Your task to perform on an android device: What's the weather? Image 0: 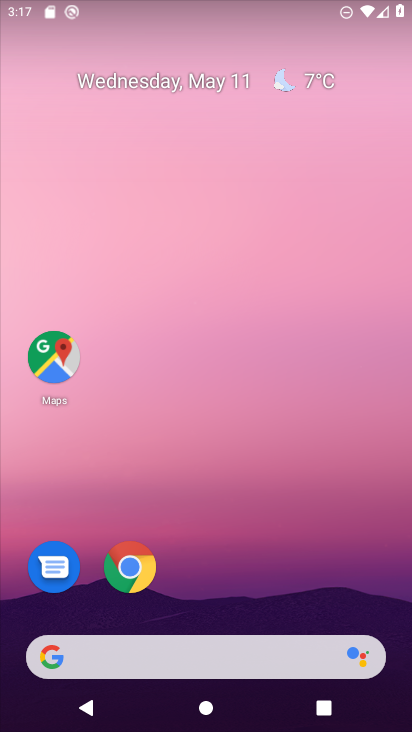
Step 0: click (325, 77)
Your task to perform on an android device: What's the weather? Image 1: 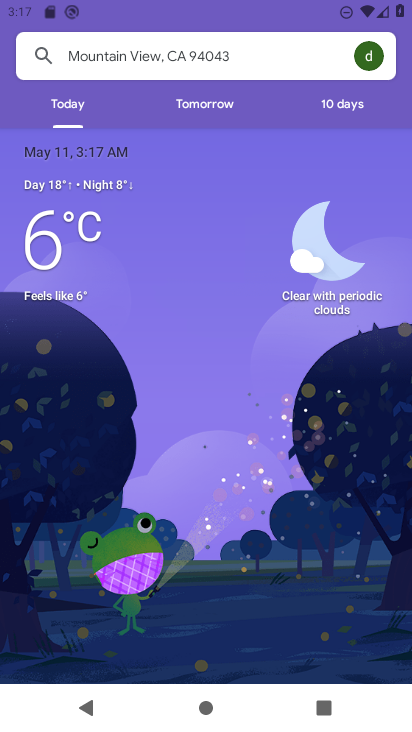
Step 1: task complete